Your task to perform on an android device: Go to wifi settings Image 0: 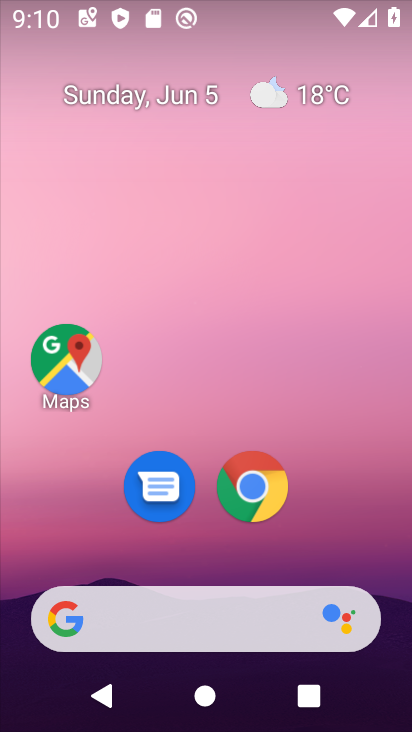
Step 0: drag from (359, 449) to (301, 45)
Your task to perform on an android device: Go to wifi settings Image 1: 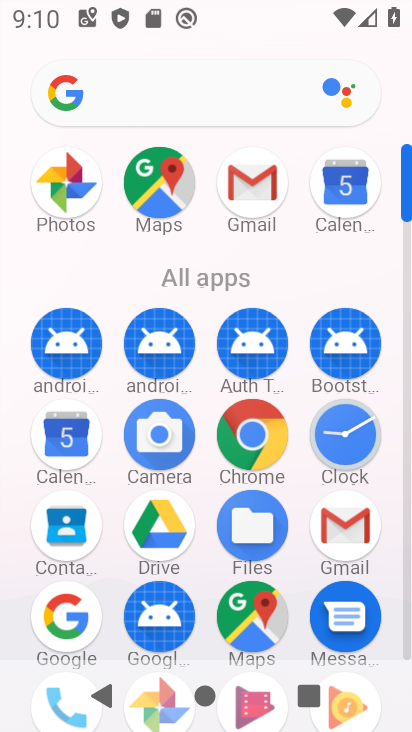
Step 1: drag from (219, 636) to (182, 316)
Your task to perform on an android device: Go to wifi settings Image 2: 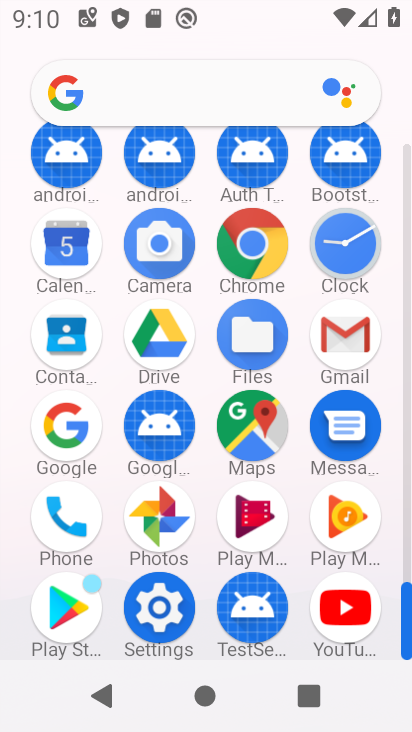
Step 2: click (161, 630)
Your task to perform on an android device: Go to wifi settings Image 3: 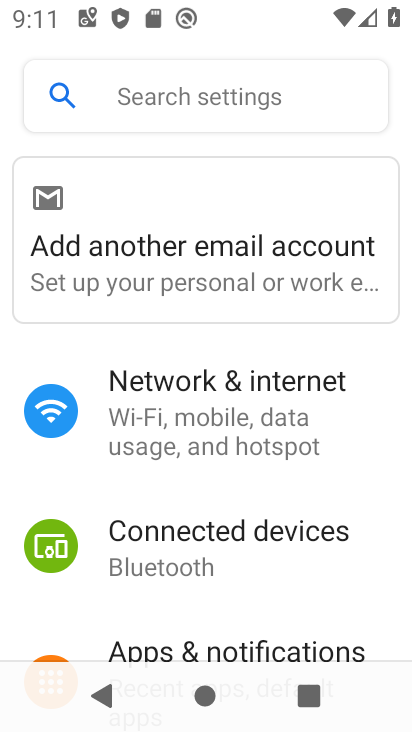
Step 3: click (161, 388)
Your task to perform on an android device: Go to wifi settings Image 4: 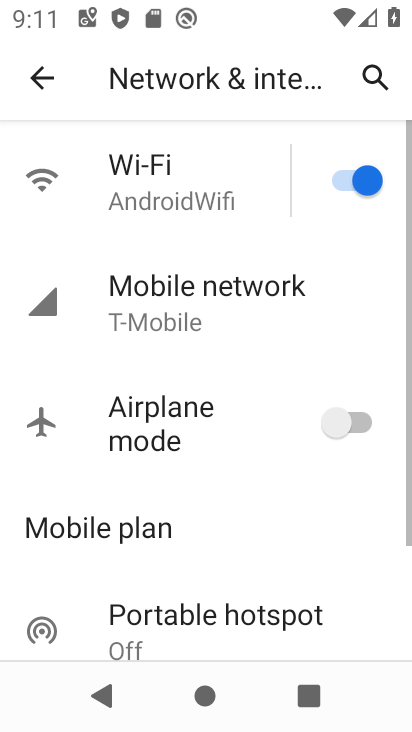
Step 4: click (185, 198)
Your task to perform on an android device: Go to wifi settings Image 5: 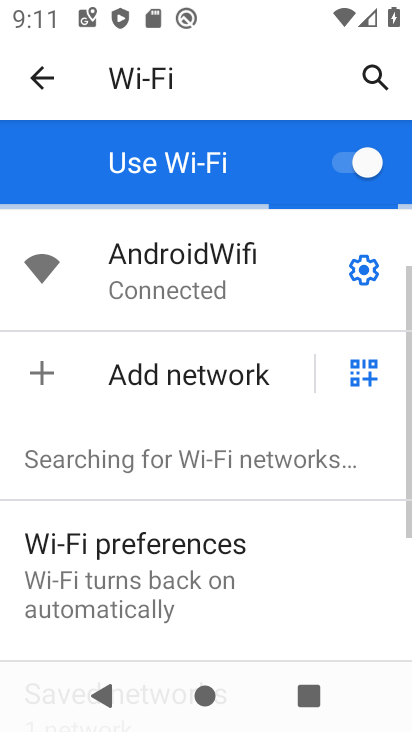
Step 5: click (377, 268)
Your task to perform on an android device: Go to wifi settings Image 6: 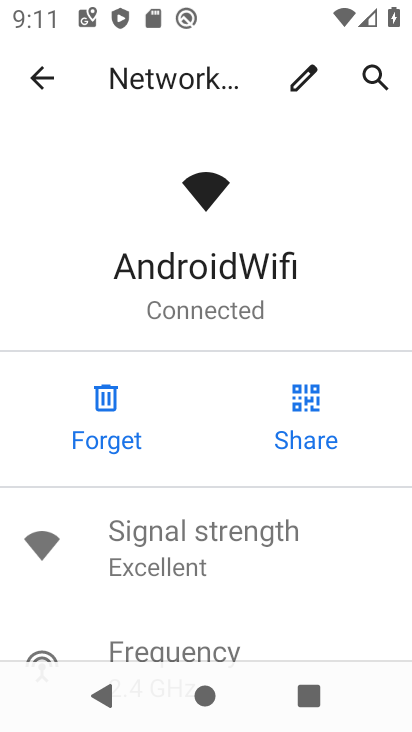
Step 6: task complete